Your task to perform on an android device: turn off sleep mode Image 0: 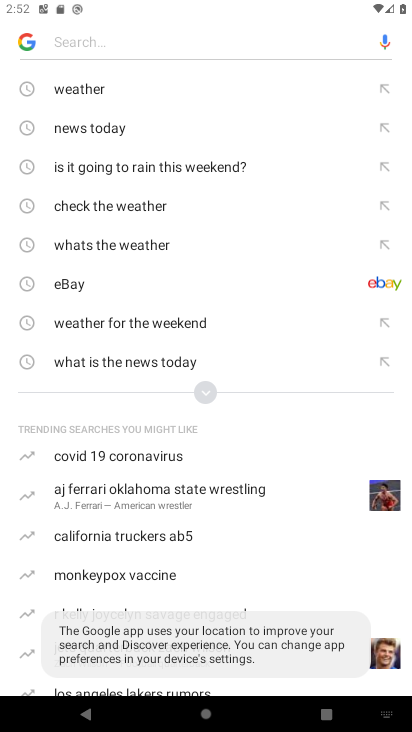
Step 0: press home button
Your task to perform on an android device: turn off sleep mode Image 1: 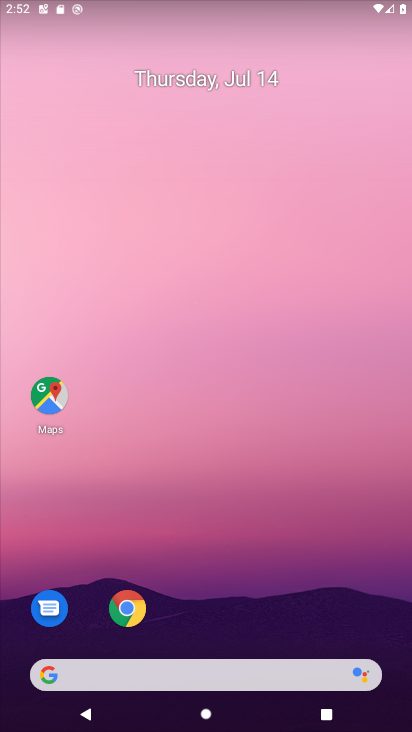
Step 1: drag from (225, 583) to (286, 115)
Your task to perform on an android device: turn off sleep mode Image 2: 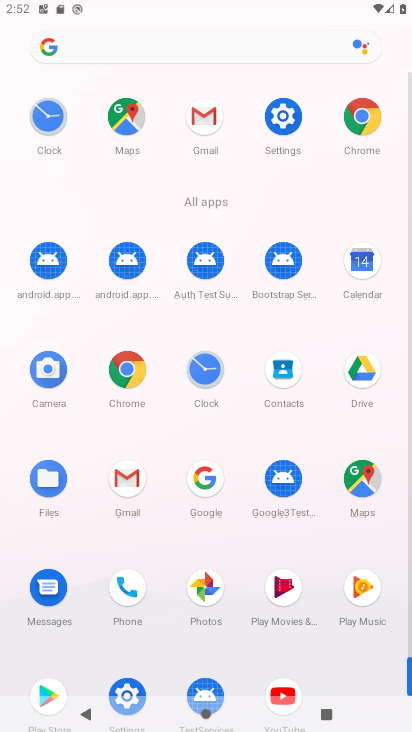
Step 2: click (280, 116)
Your task to perform on an android device: turn off sleep mode Image 3: 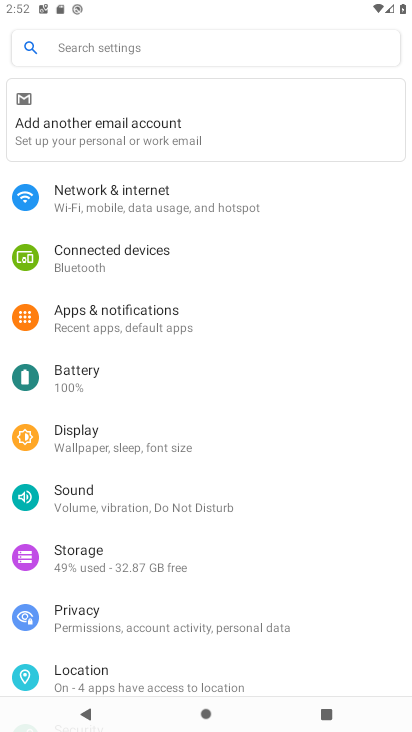
Step 3: click (105, 442)
Your task to perform on an android device: turn off sleep mode Image 4: 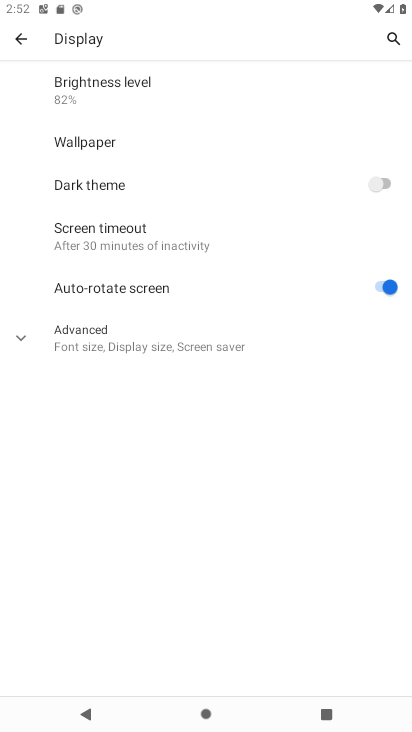
Step 4: task complete